Your task to perform on an android device: Go to accessibility settings Image 0: 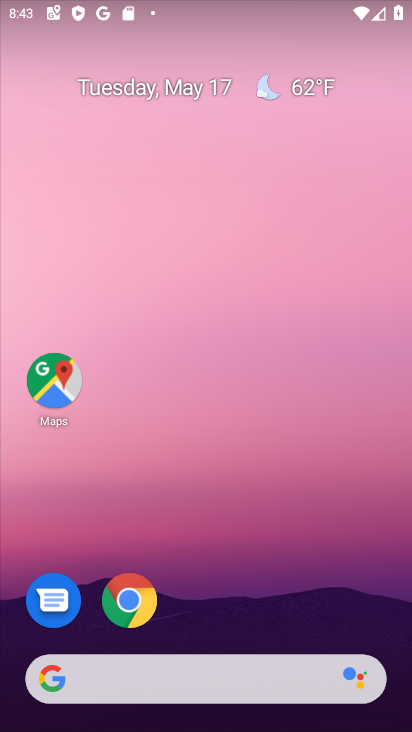
Step 0: drag from (207, 726) to (267, 22)
Your task to perform on an android device: Go to accessibility settings Image 1: 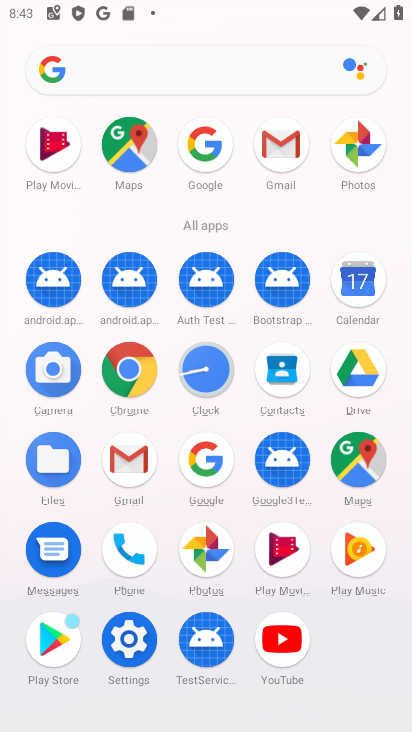
Step 1: click (139, 638)
Your task to perform on an android device: Go to accessibility settings Image 2: 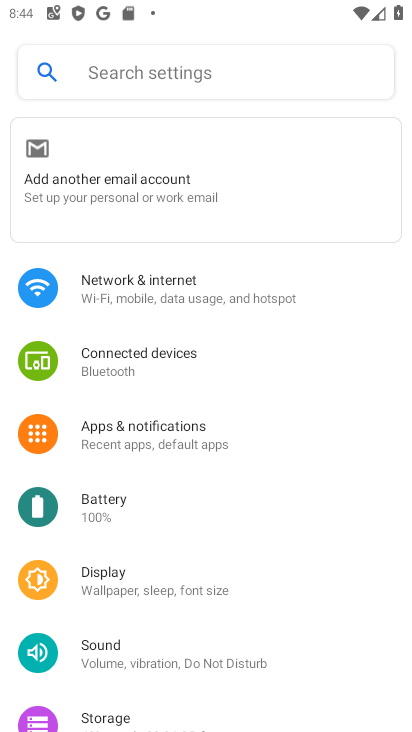
Step 2: drag from (176, 650) to (200, 309)
Your task to perform on an android device: Go to accessibility settings Image 3: 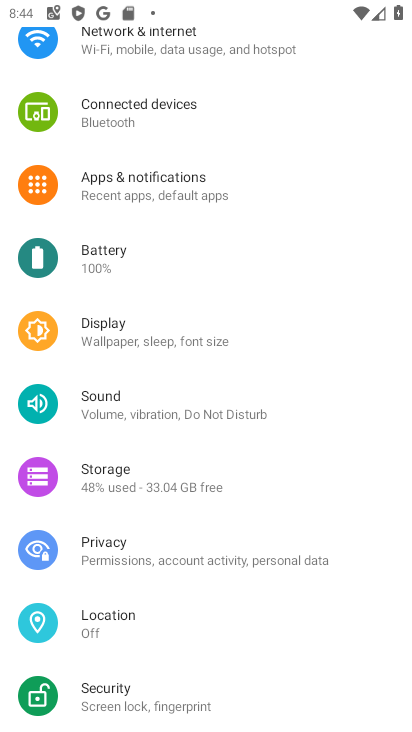
Step 3: drag from (161, 618) to (171, 160)
Your task to perform on an android device: Go to accessibility settings Image 4: 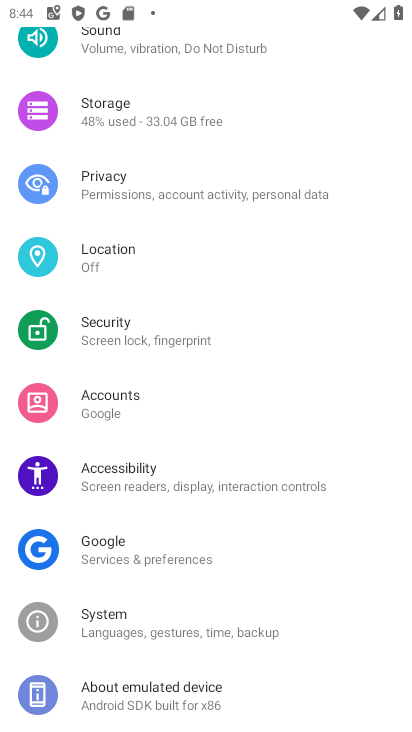
Step 4: click (118, 475)
Your task to perform on an android device: Go to accessibility settings Image 5: 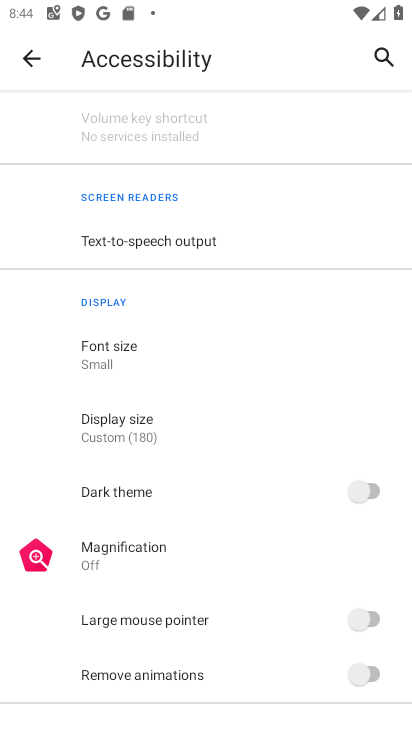
Step 5: task complete